Your task to perform on an android device: move a message to another label in the gmail app Image 0: 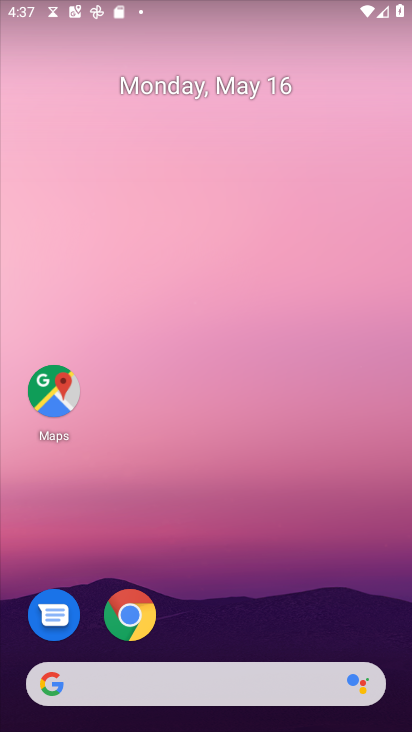
Step 0: drag from (250, 613) to (317, 109)
Your task to perform on an android device: move a message to another label in the gmail app Image 1: 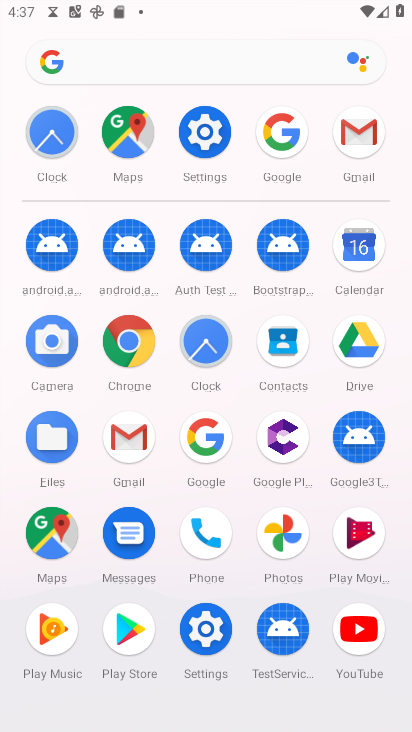
Step 1: click (366, 139)
Your task to perform on an android device: move a message to another label in the gmail app Image 2: 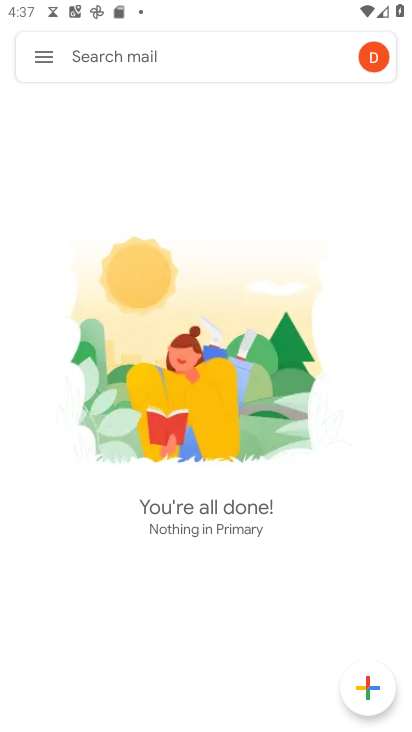
Step 2: click (41, 54)
Your task to perform on an android device: move a message to another label in the gmail app Image 3: 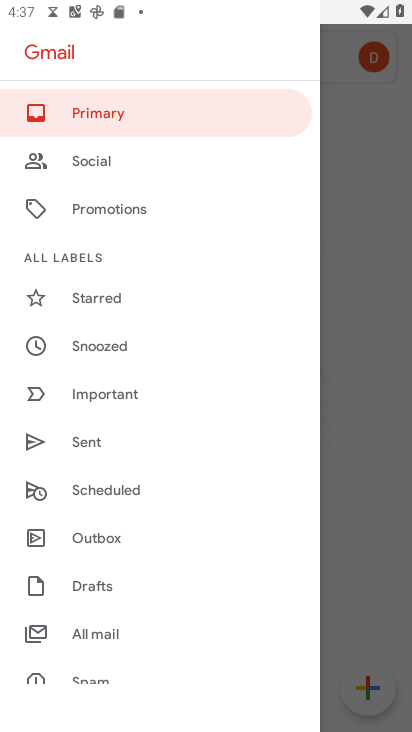
Step 3: click (112, 632)
Your task to perform on an android device: move a message to another label in the gmail app Image 4: 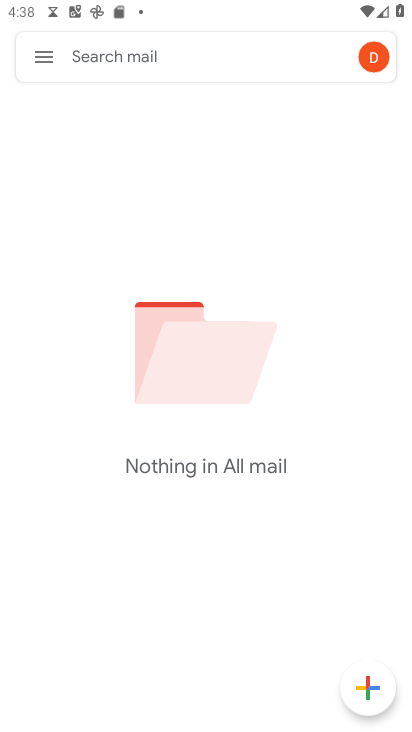
Step 4: task complete